Your task to perform on an android device: turn on location history Image 0: 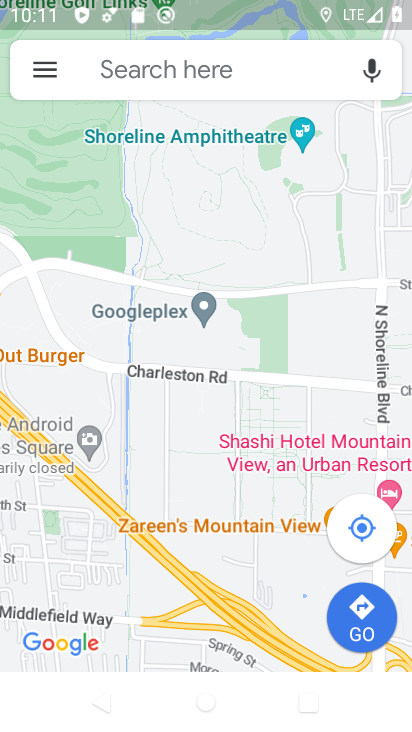
Step 0: press home button
Your task to perform on an android device: turn on location history Image 1: 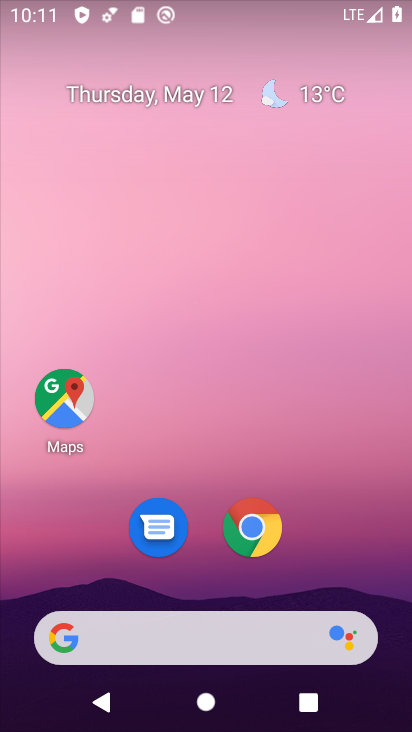
Step 1: drag from (335, 554) to (356, 180)
Your task to perform on an android device: turn on location history Image 2: 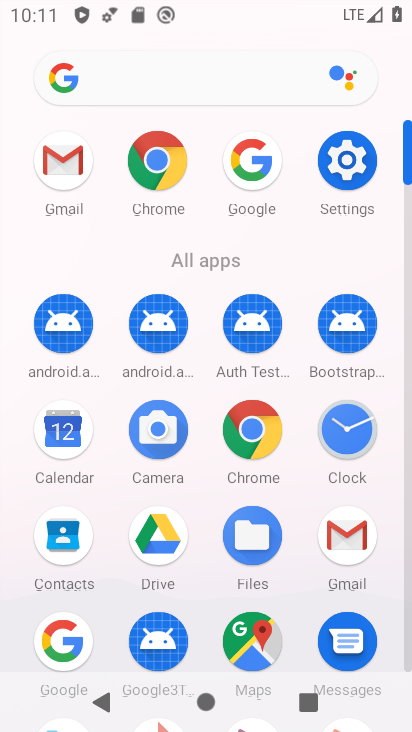
Step 2: click (344, 170)
Your task to perform on an android device: turn on location history Image 3: 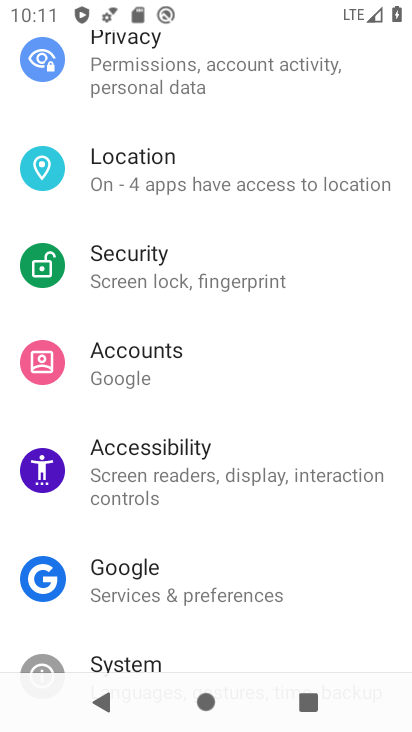
Step 3: click (154, 187)
Your task to perform on an android device: turn on location history Image 4: 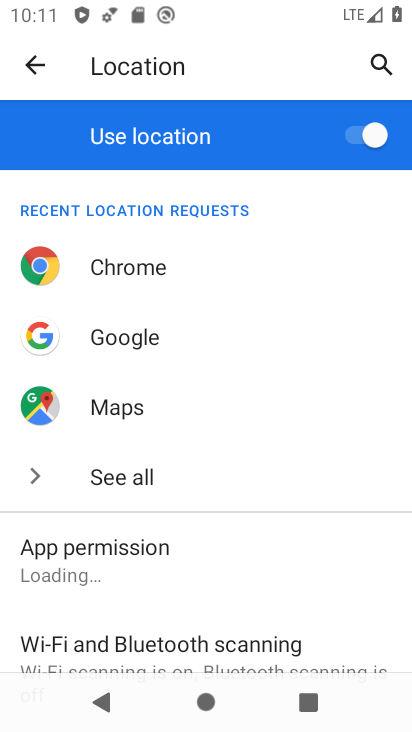
Step 4: drag from (85, 619) to (143, 349)
Your task to perform on an android device: turn on location history Image 5: 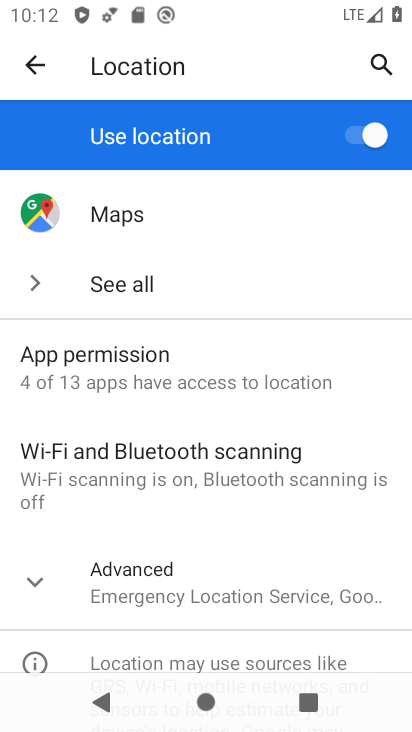
Step 5: click (165, 564)
Your task to perform on an android device: turn on location history Image 6: 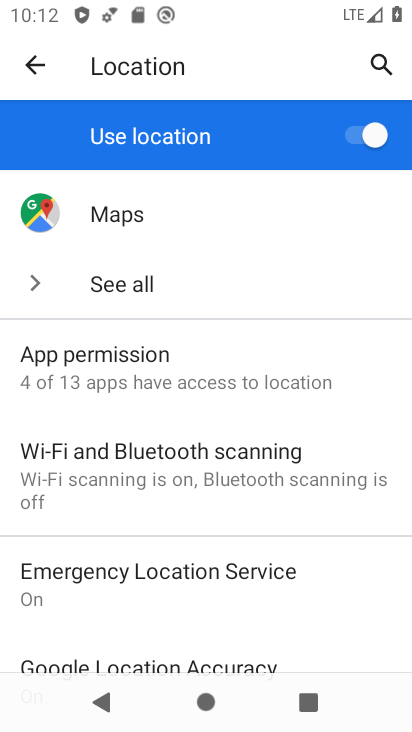
Step 6: drag from (124, 637) to (222, 445)
Your task to perform on an android device: turn on location history Image 7: 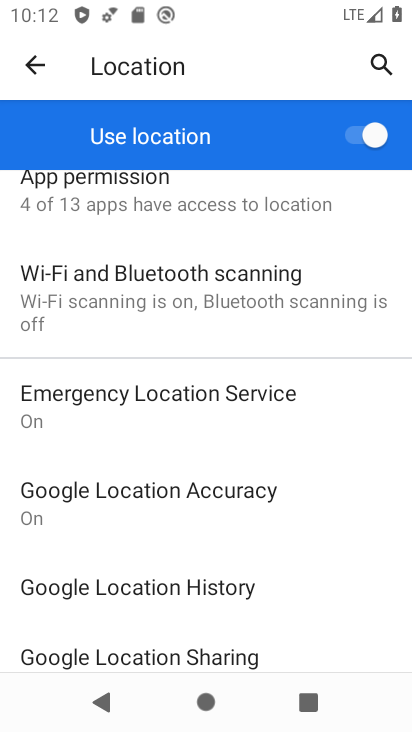
Step 7: click (125, 587)
Your task to perform on an android device: turn on location history Image 8: 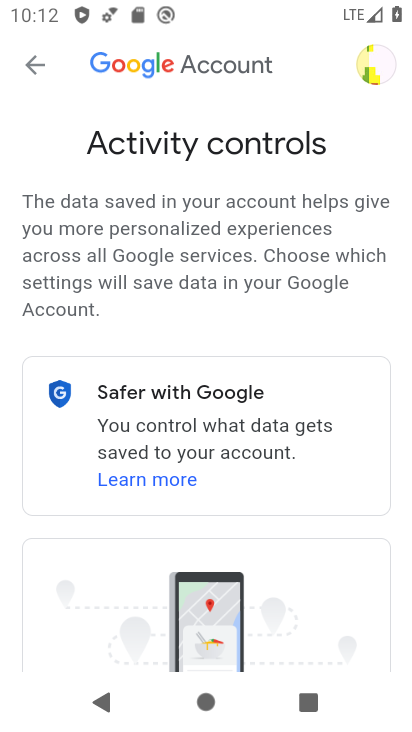
Step 8: task complete